Your task to perform on an android device: change the clock display to show seconds Image 0: 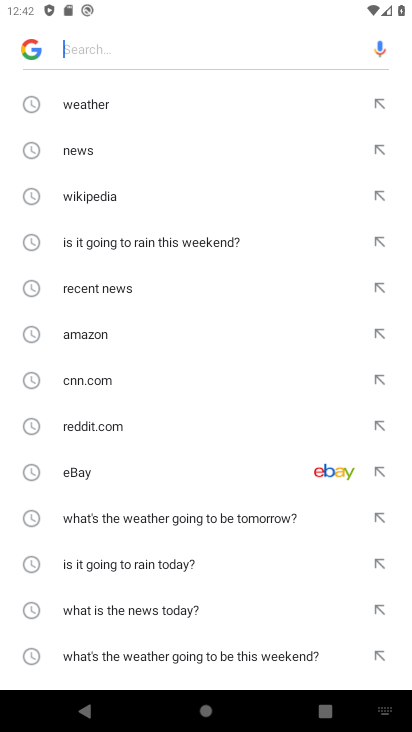
Step 0: press home button
Your task to perform on an android device: change the clock display to show seconds Image 1: 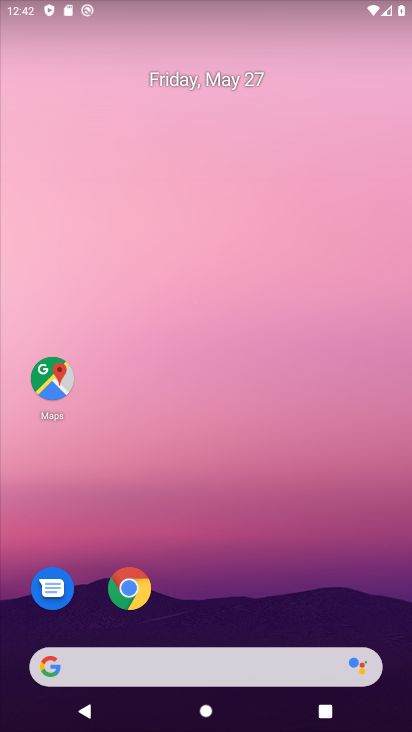
Step 1: drag from (209, 634) to (159, 13)
Your task to perform on an android device: change the clock display to show seconds Image 2: 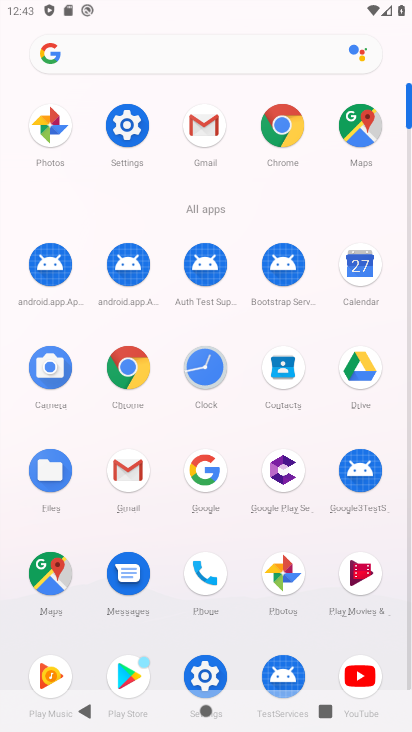
Step 2: click (210, 366)
Your task to perform on an android device: change the clock display to show seconds Image 3: 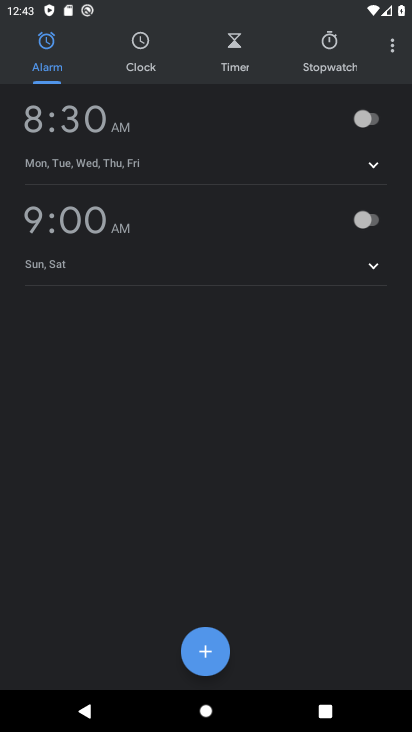
Step 3: click (390, 50)
Your task to perform on an android device: change the clock display to show seconds Image 4: 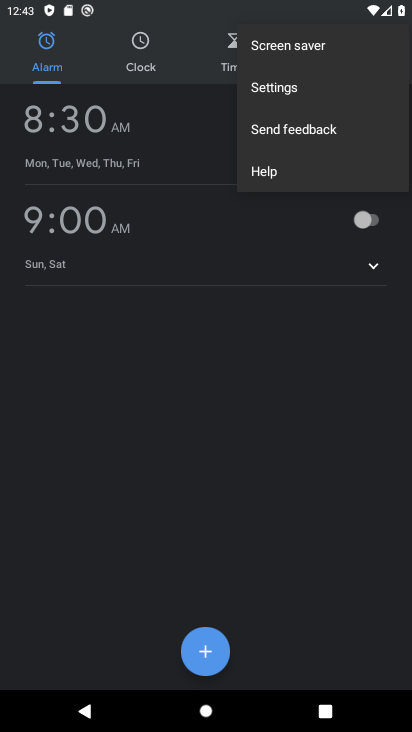
Step 4: click (287, 89)
Your task to perform on an android device: change the clock display to show seconds Image 5: 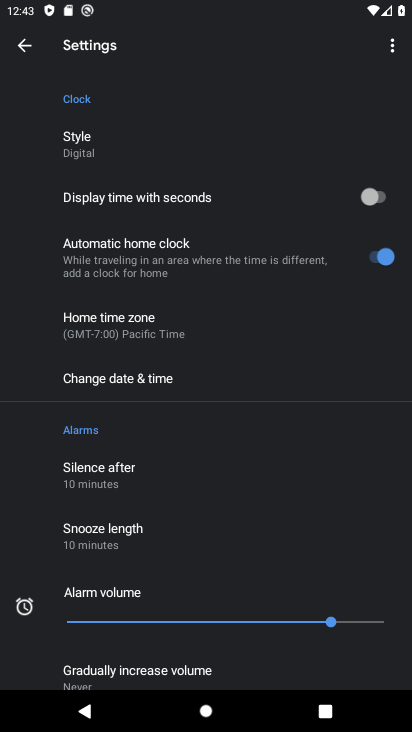
Step 5: click (370, 192)
Your task to perform on an android device: change the clock display to show seconds Image 6: 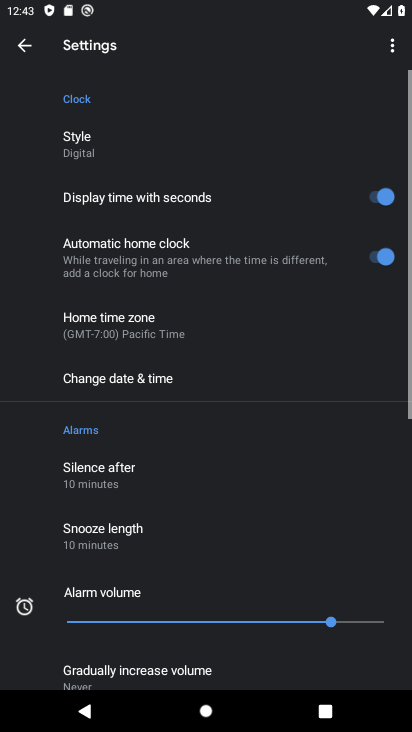
Step 6: task complete